Your task to perform on an android device: When is my next meeting? Image 0: 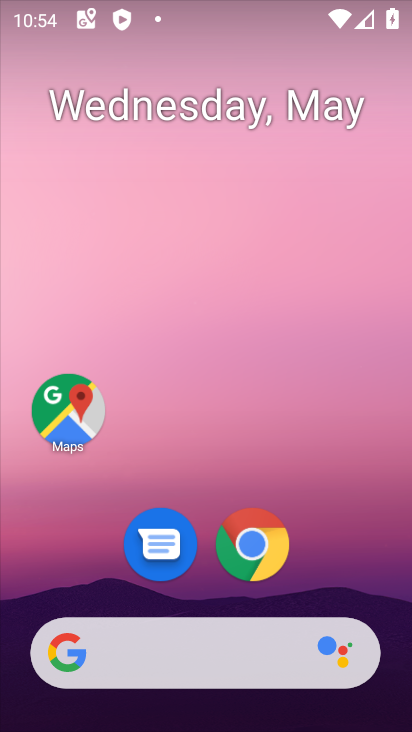
Step 0: drag from (128, 678) to (104, 557)
Your task to perform on an android device: When is my next meeting? Image 1: 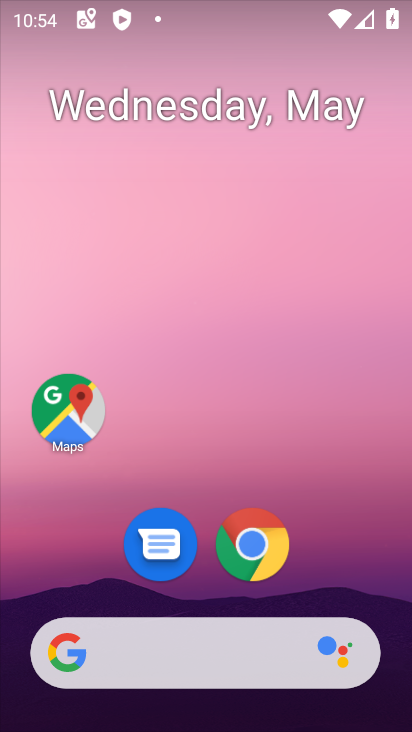
Step 1: drag from (99, 552) to (100, 651)
Your task to perform on an android device: When is my next meeting? Image 2: 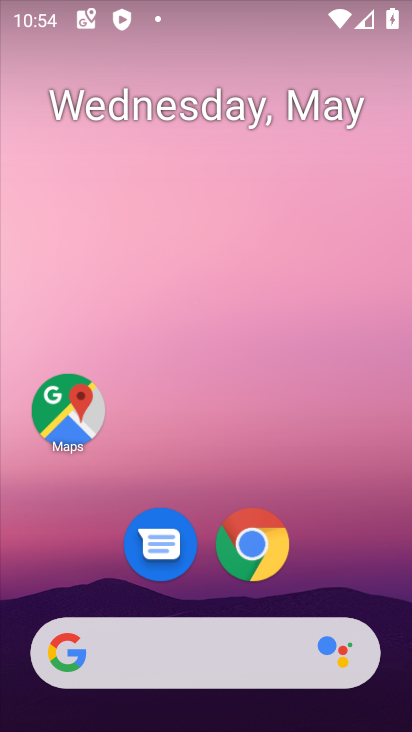
Step 2: drag from (245, 700) to (315, 276)
Your task to perform on an android device: When is my next meeting? Image 3: 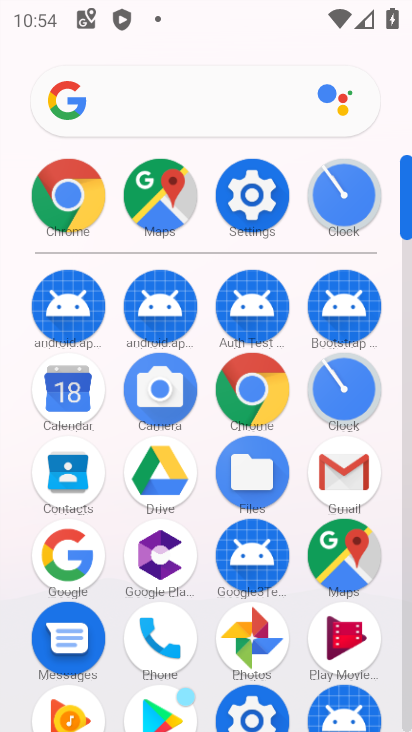
Step 3: click (56, 391)
Your task to perform on an android device: When is my next meeting? Image 4: 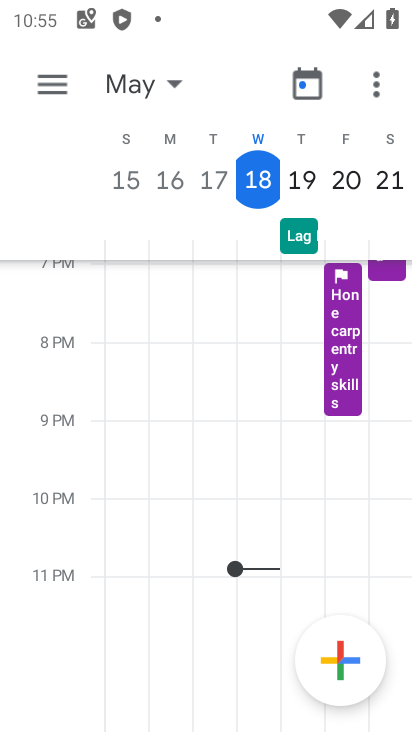
Step 4: click (169, 81)
Your task to perform on an android device: When is my next meeting? Image 5: 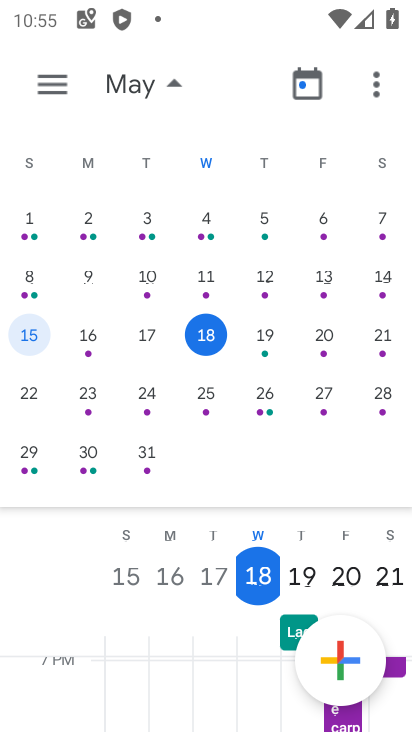
Step 5: click (223, 641)
Your task to perform on an android device: When is my next meeting? Image 6: 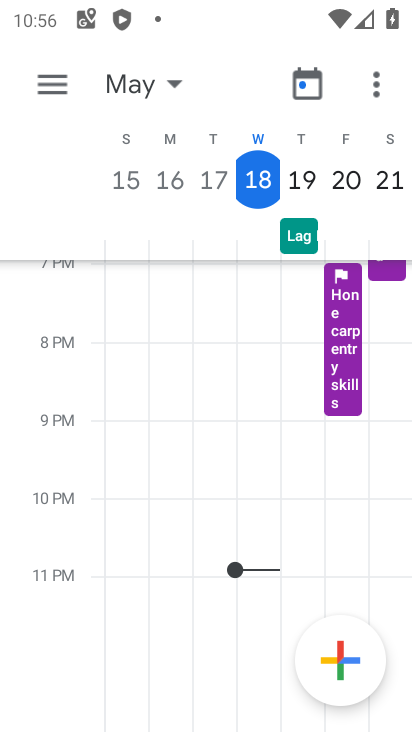
Step 6: click (295, 179)
Your task to perform on an android device: When is my next meeting? Image 7: 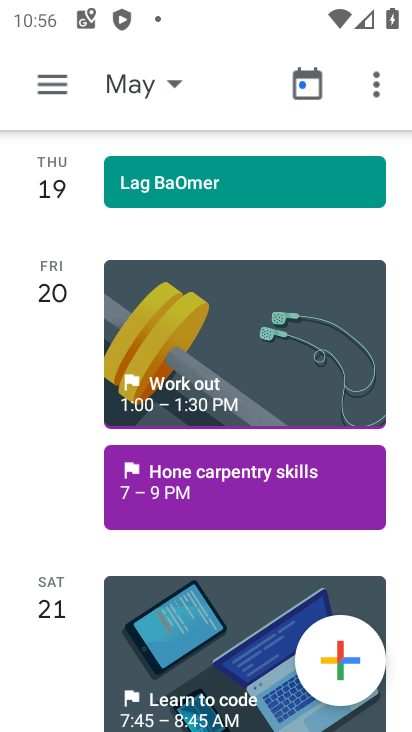
Step 7: task complete